Your task to perform on an android device: toggle pop-ups in chrome Image 0: 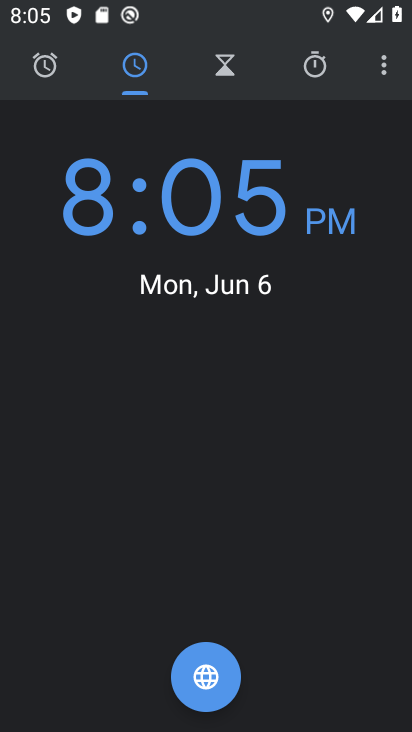
Step 0: press home button
Your task to perform on an android device: toggle pop-ups in chrome Image 1: 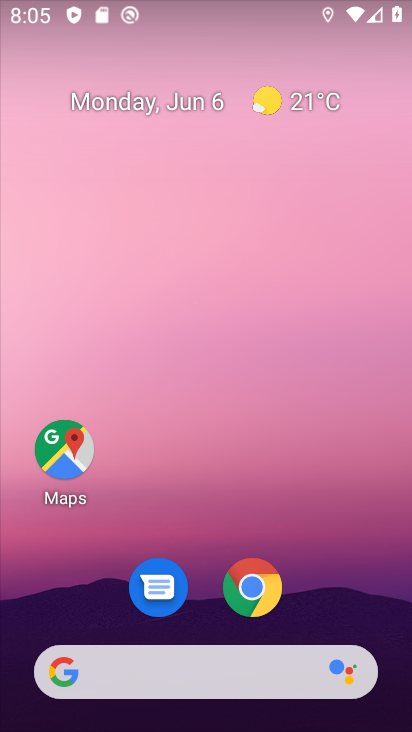
Step 1: click (248, 589)
Your task to perform on an android device: toggle pop-ups in chrome Image 2: 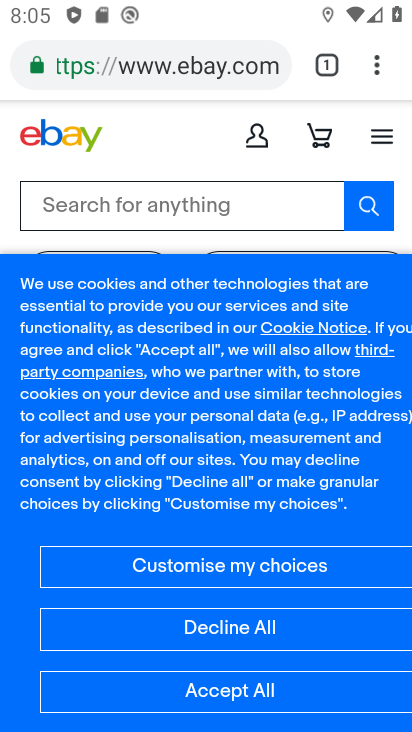
Step 2: drag from (386, 55) to (266, 652)
Your task to perform on an android device: toggle pop-ups in chrome Image 3: 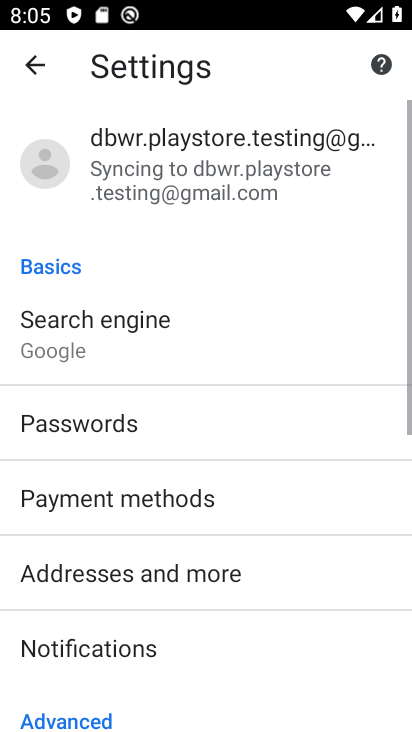
Step 3: drag from (270, 644) to (326, 314)
Your task to perform on an android device: toggle pop-ups in chrome Image 4: 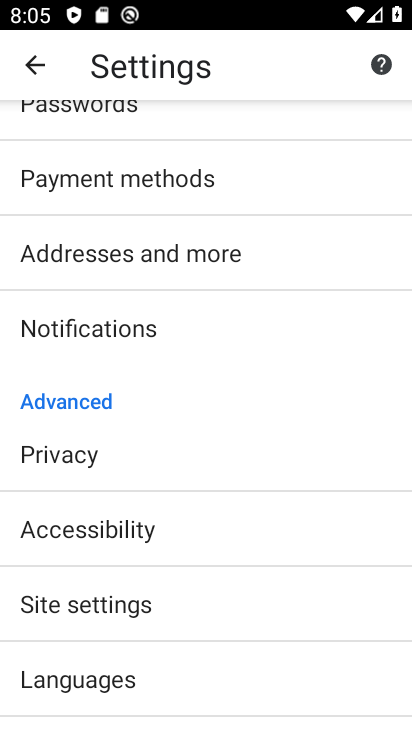
Step 4: click (145, 598)
Your task to perform on an android device: toggle pop-ups in chrome Image 5: 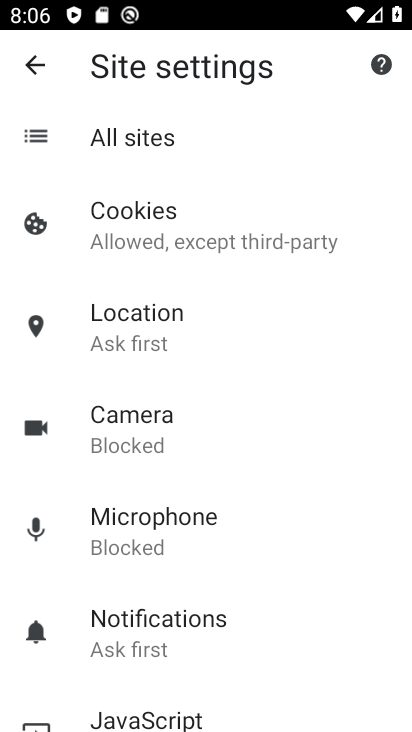
Step 5: drag from (233, 534) to (340, 306)
Your task to perform on an android device: toggle pop-ups in chrome Image 6: 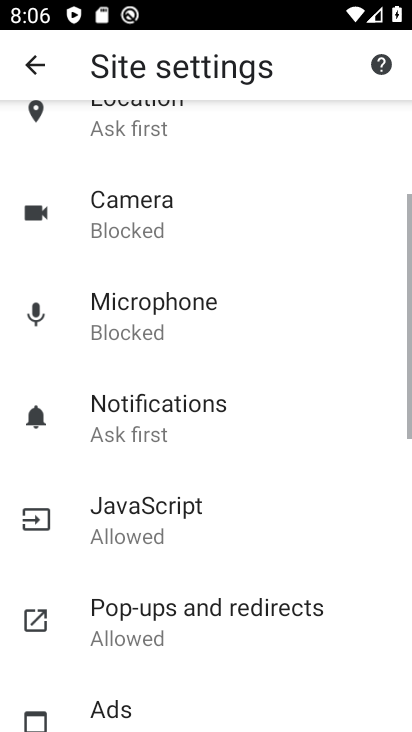
Step 6: click (371, 264)
Your task to perform on an android device: toggle pop-ups in chrome Image 7: 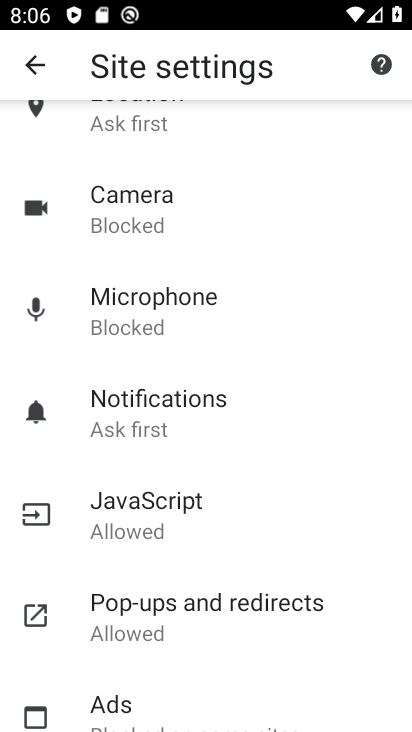
Step 7: click (193, 571)
Your task to perform on an android device: toggle pop-ups in chrome Image 8: 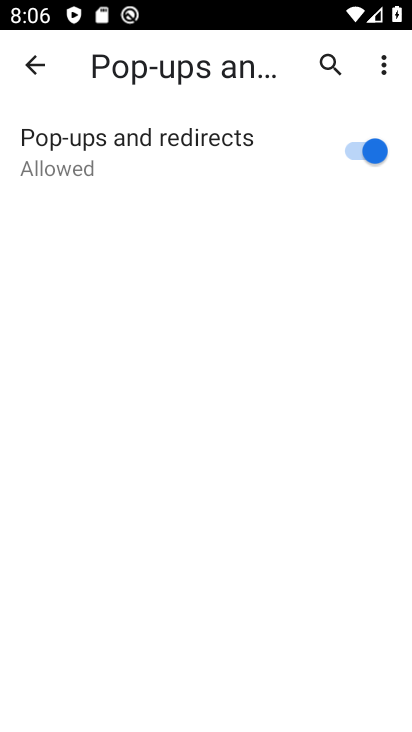
Step 8: click (380, 149)
Your task to perform on an android device: toggle pop-ups in chrome Image 9: 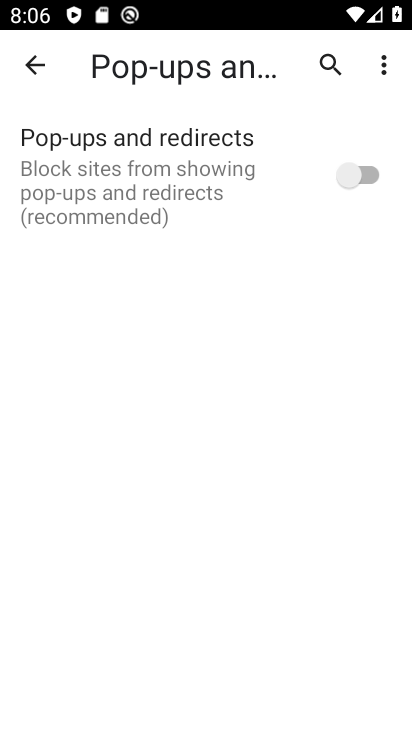
Step 9: task complete